Your task to perform on an android device: Open my contact list Image 0: 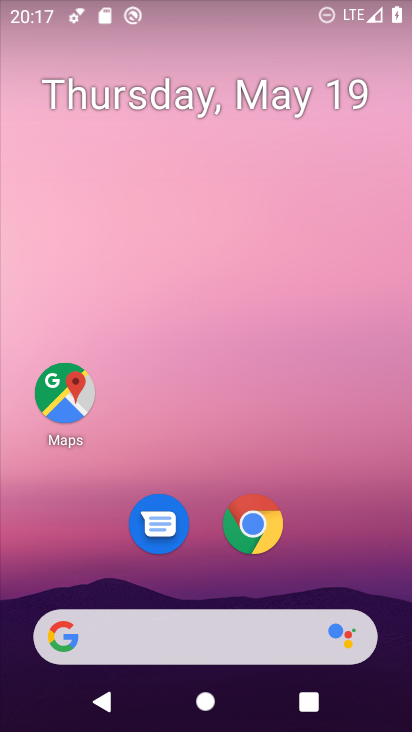
Step 0: drag from (353, 528) to (337, 60)
Your task to perform on an android device: Open my contact list Image 1: 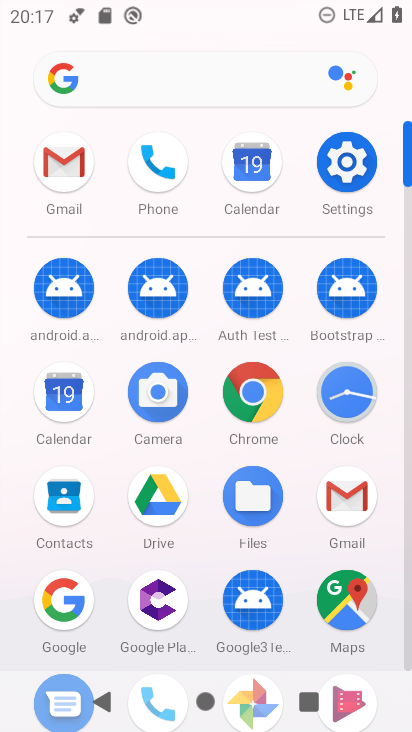
Step 1: click (76, 489)
Your task to perform on an android device: Open my contact list Image 2: 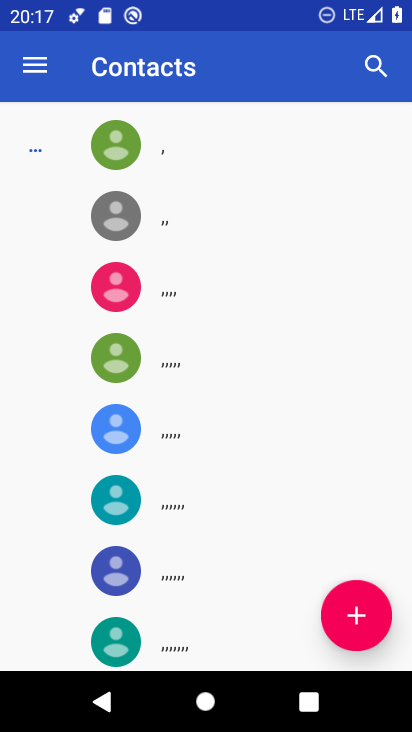
Step 2: task complete